Your task to perform on an android device: Open the calendar app, open the side menu, and click the "Day" option Image 0: 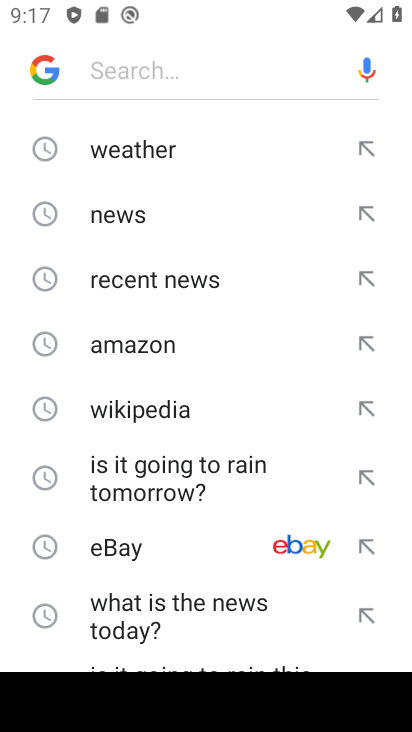
Step 0: press home button
Your task to perform on an android device: Open the calendar app, open the side menu, and click the "Day" option Image 1: 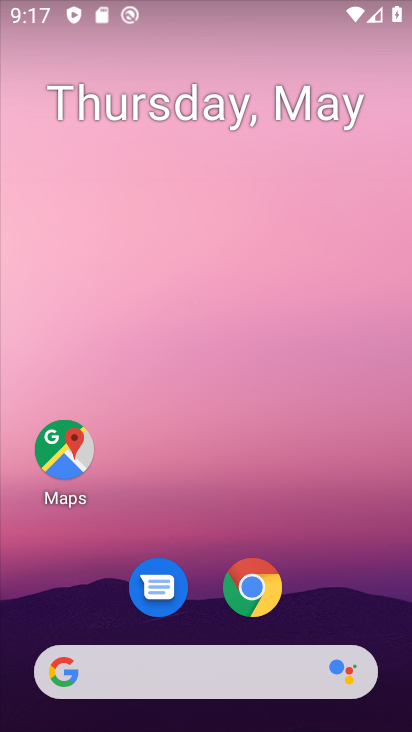
Step 1: drag from (320, 600) to (243, 13)
Your task to perform on an android device: Open the calendar app, open the side menu, and click the "Day" option Image 2: 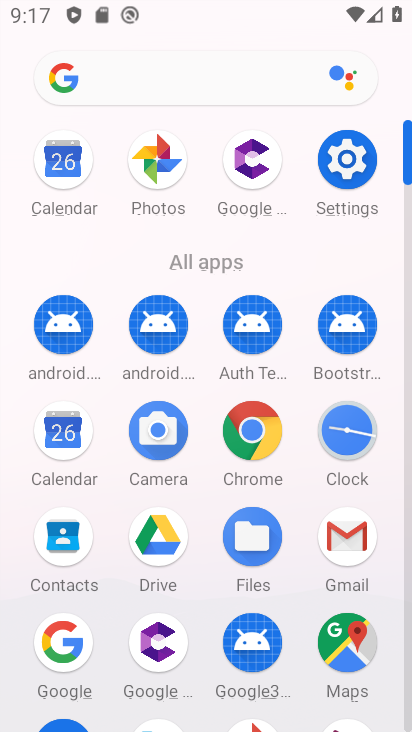
Step 2: click (46, 174)
Your task to perform on an android device: Open the calendar app, open the side menu, and click the "Day" option Image 3: 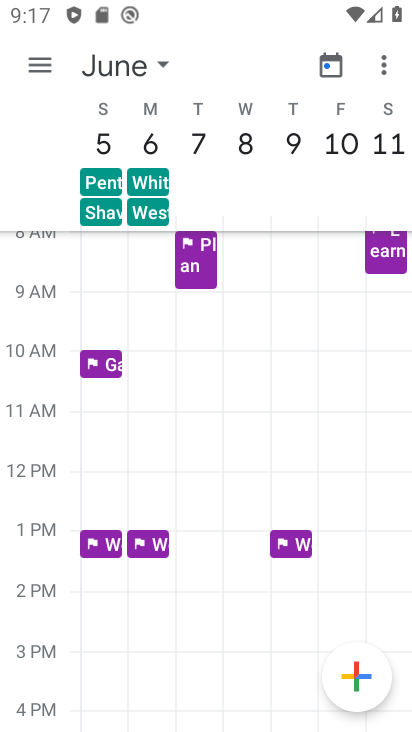
Step 3: click (38, 70)
Your task to perform on an android device: Open the calendar app, open the side menu, and click the "Day" option Image 4: 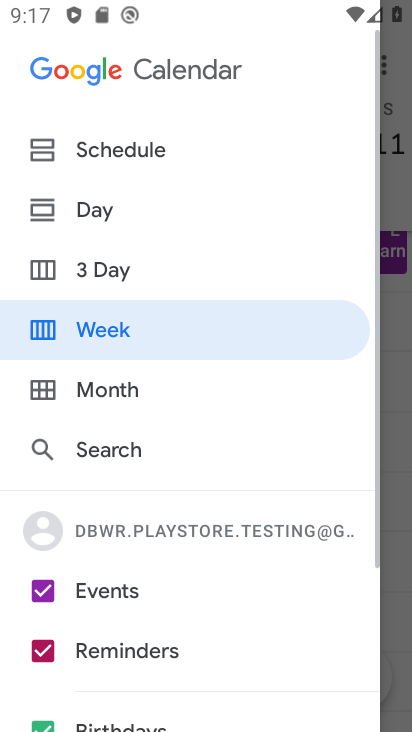
Step 4: click (88, 212)
Your task to perform on an android device: Open the calendar app, open the side menu, and click the "Day" option Image 5: 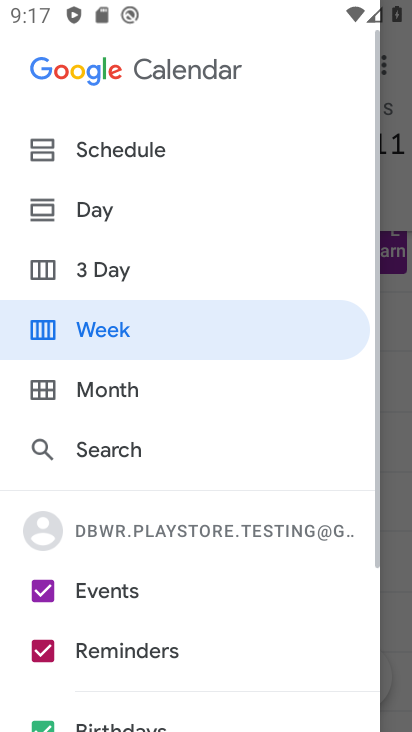
Step 5: click (69, 208)
Your task to perform on an android device: Open the calendar app, open the side menu, and click the "Day" option Image 6: 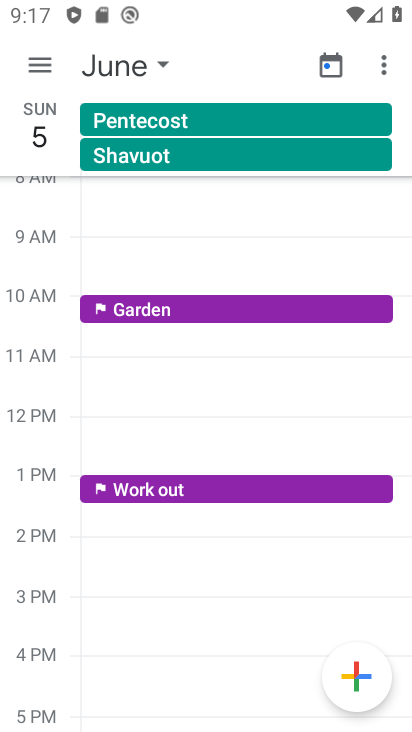
Step 6: task complete